Your task to perform on an android device: refresh tabs in the chrome app Image 0: 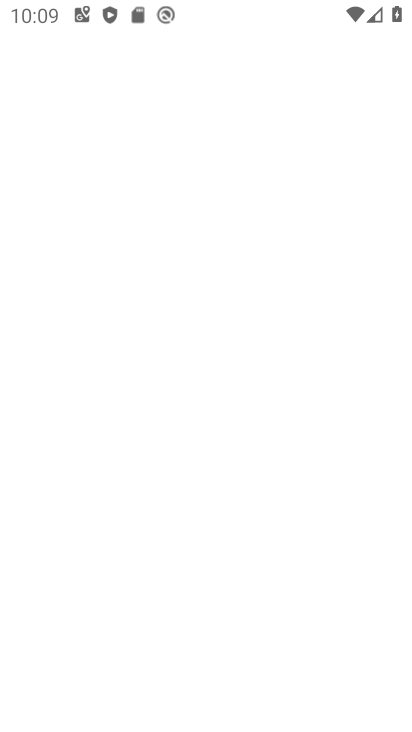
Step 0: drag from (133, 600) to (265, 130)
Your task to perform on an android device: refresh tabs in the chrome app Image 1: 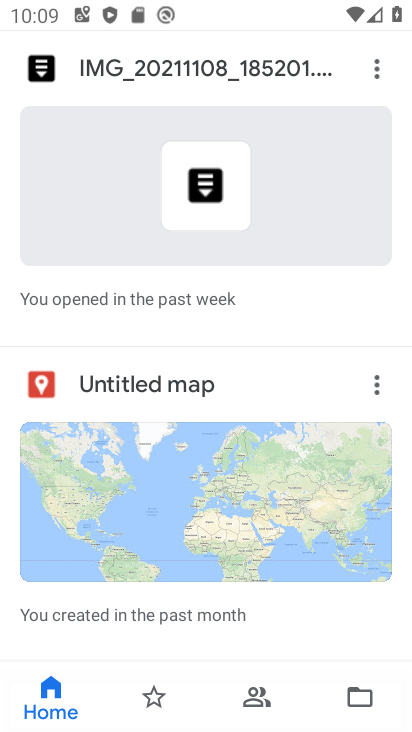
Step 1: press home button
Your task to perform on an android device: refresh tabs in the chrome app Image 2: 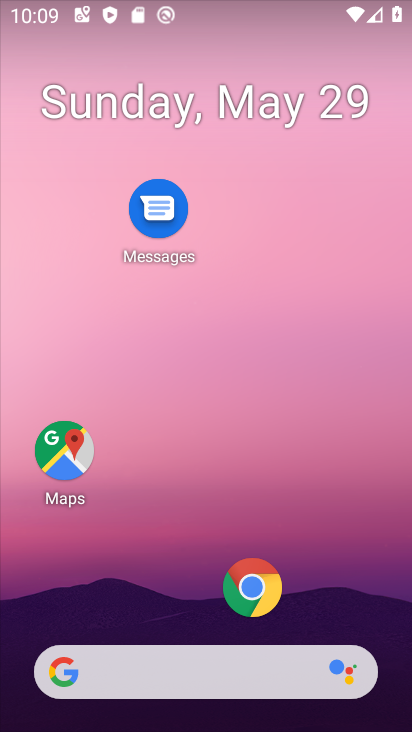
Step 2: click (262, 586)
Your task to perform on an android device: refresh tabs in the chrome app Image 3: 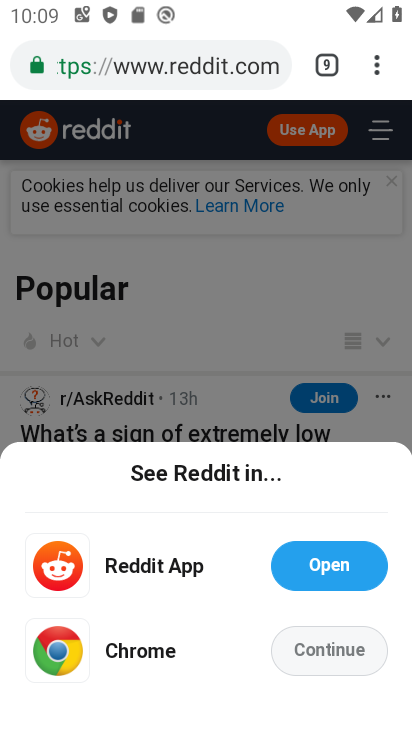
Step 3: task complete